Your task to perform on an android device: Search for Italian restaurants on Maps Image 0: 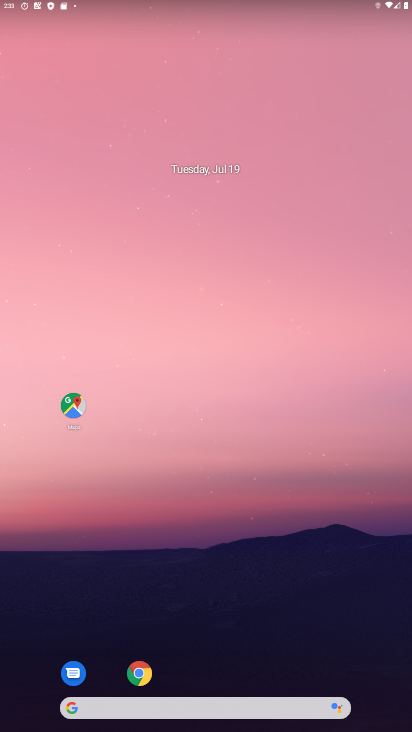
Step 0: click (79, 399)
Your task to perform on an android device: Search for Italian restaurants on Maps Image 1: 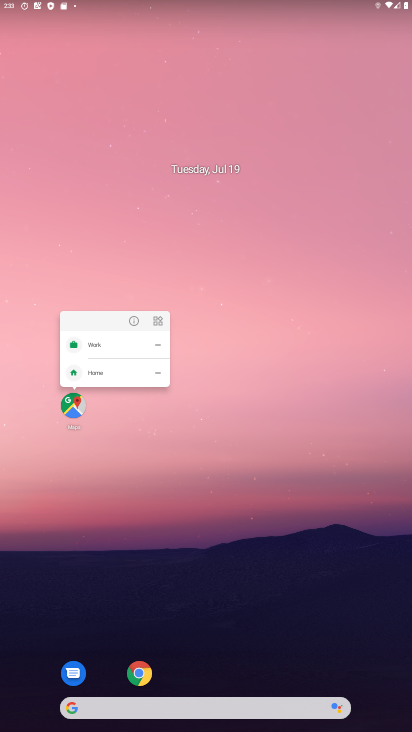
Step 1: click (85, 407)
Your task to perform on an android device: Search for Italian restaurants on Maps Image 2: 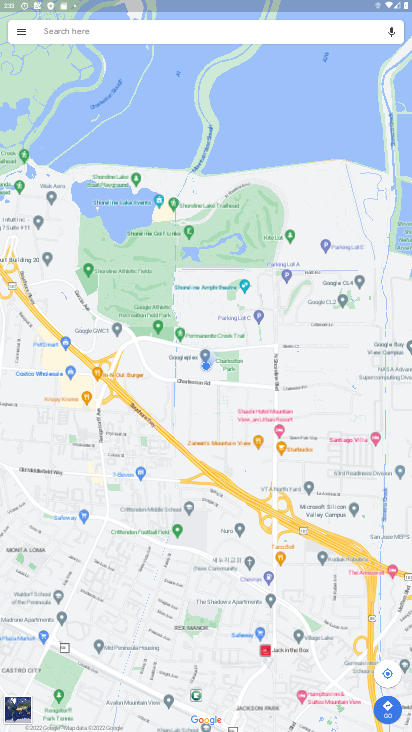
Step 2: click (150, 29)
Your task to perform on an android device: Search for Italian restaurants on Maps Image 3: 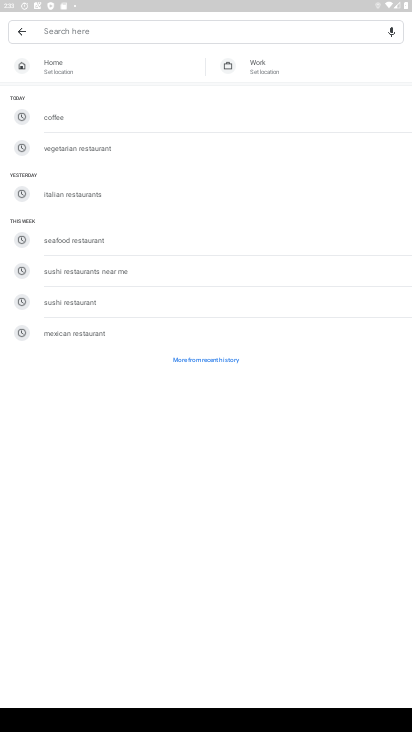
Step 3: type "italian restaurants"
Your task to perform on an android device: Search for Italian restaurants on Maps Image 4: 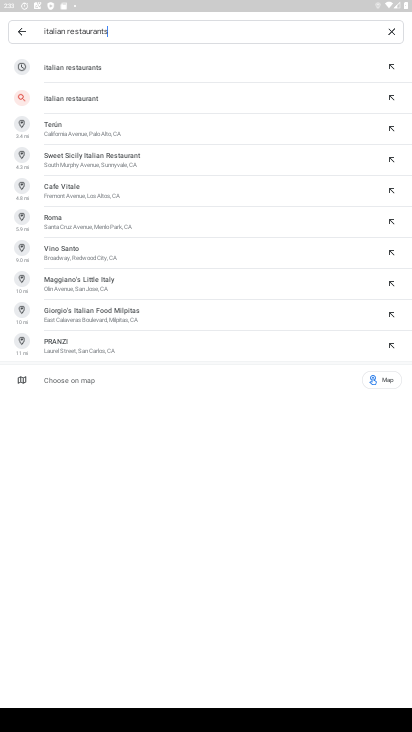
Step 4: click (123, 61)
Your task to perform on an android device: Search for Italian restaurants on Maps Image 5: 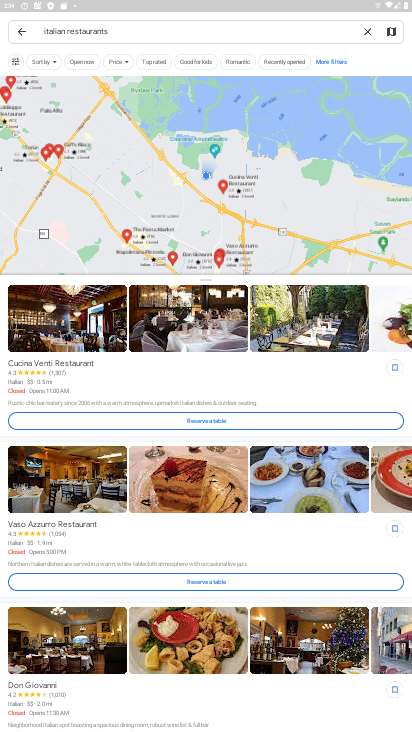
Step 5: task complete